Your task to perform on an android device: Show me the alarms in the clock app Image 0: 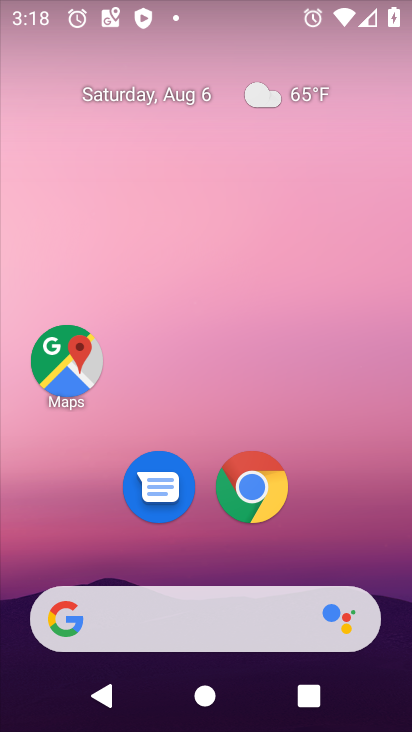
Step 0: drag from (263, 590) to (280, 0)
Your task to perform on an android device: Show me the alarms in the clock app Image 1: 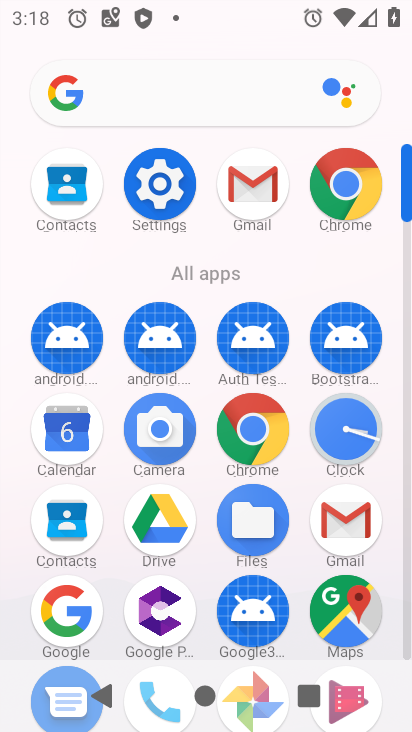
Step 1: click (333, 425)
Your task to perform on an android device: Show me the alarms in the clock app Image 2: 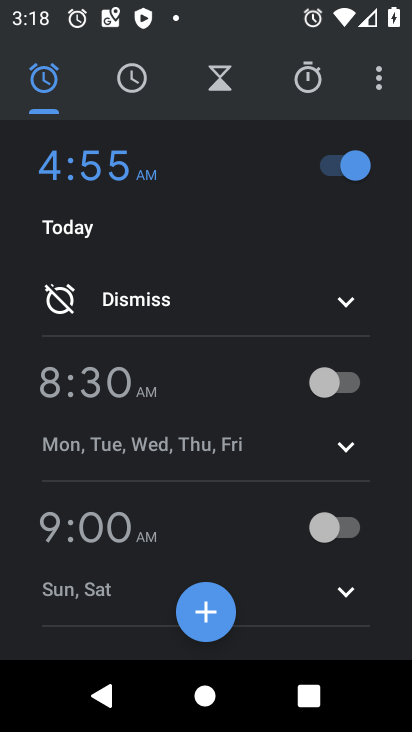
Step 2: task complete